Your task to perform on an android device: change keyboard looks Image 0: 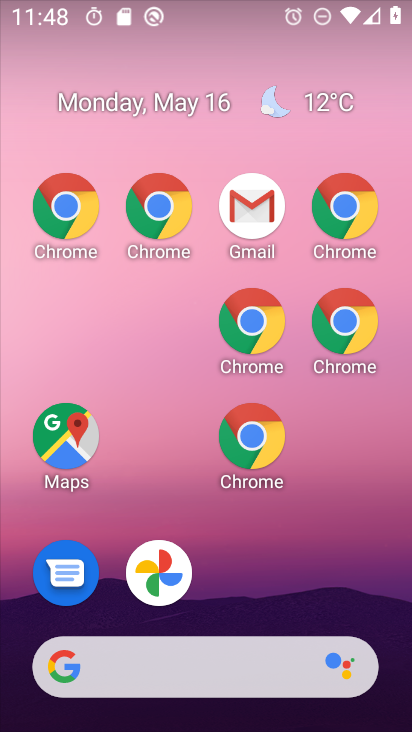
Step 0: drag from (301, 584) to (180, 25)
Your task to perform on an android device: change keyboard looks Image 1: 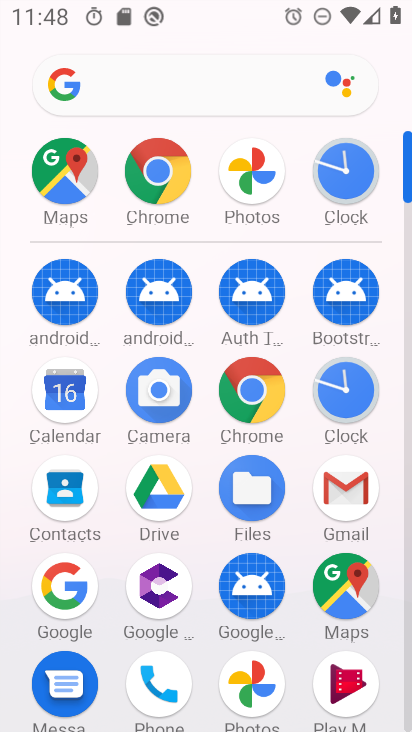
Step 1: drag from (223, 679) to (254, 170)
Your task to perform on an android device: change keyboard looks Image 2: 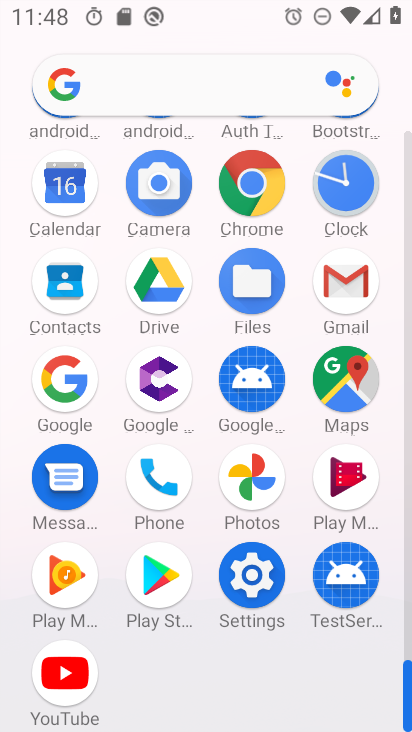
Step 2: click (259, 592)
Your task to perform on an android device: change keyboard looks Image 3: 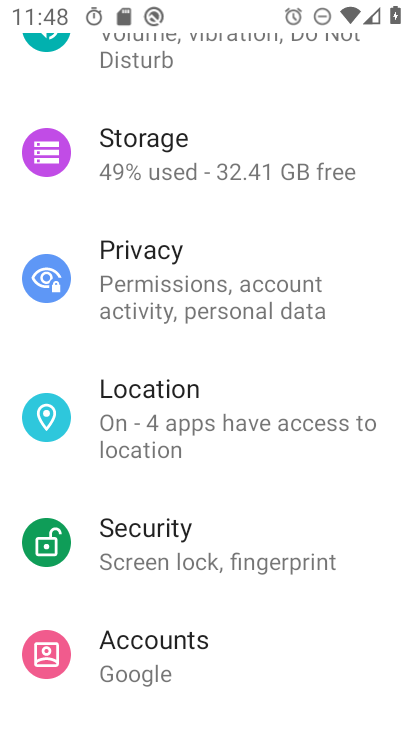
Step 3: drag from (204, 540) to (196, 14)
Your task to perform on an android device: change keyboard looks Image 4: 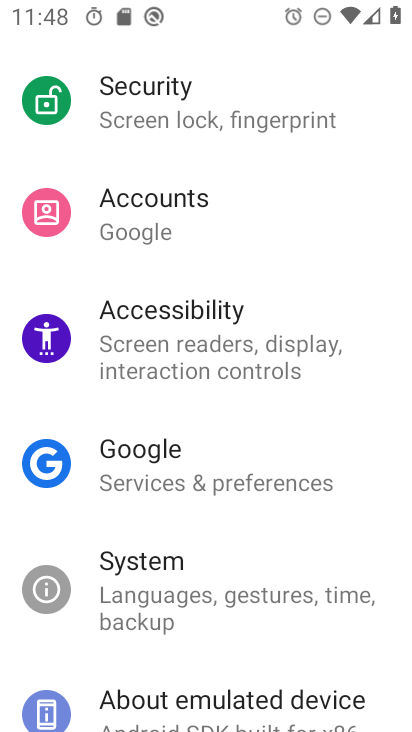
Step 4: drag from (165, 427) to (82, 57)
Your task to perform on an android device: change keyboard looks Image 5: 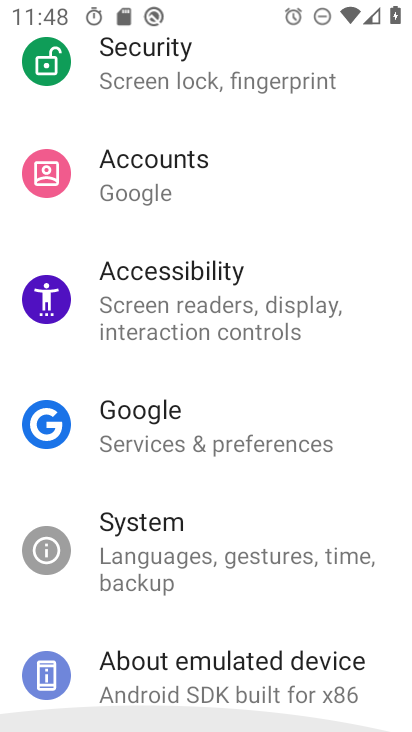
Step 5: drag from (165, 506) to (207, 74)
Your task to perform on an android device: change keyboard looks Image 6: 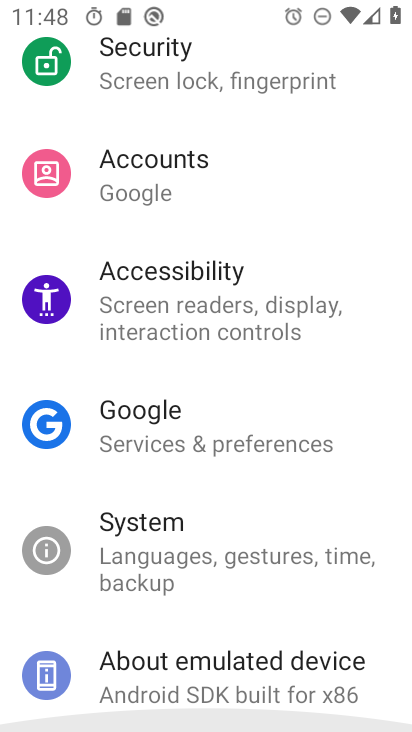
Step 6: drag from (217, 481) to (212, 190)
Your task to perform on an android device: change keyboard looks Image 7: 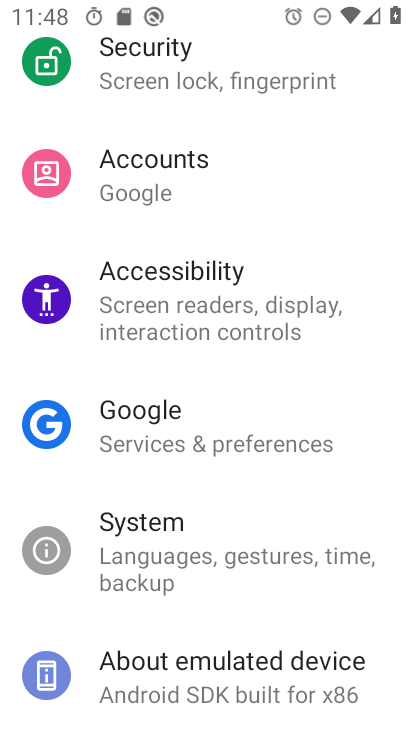
Step 7: click (167, 556)
Your task to perform on an android device: change keyboard looks Image 8: 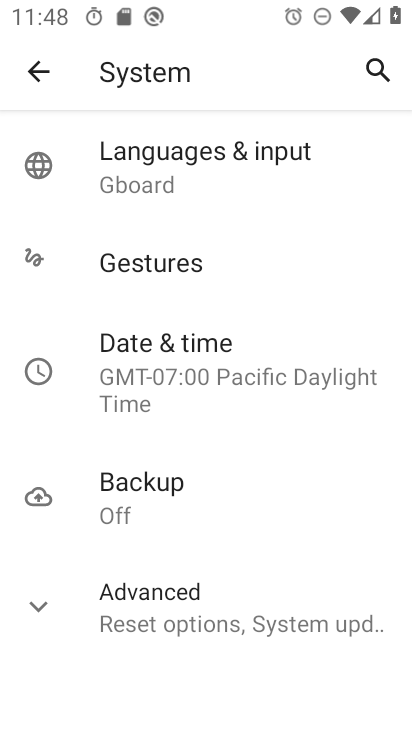
Step 8: click (139, 159)
Your task to perform on an android device: change keyboard looks Image 9: 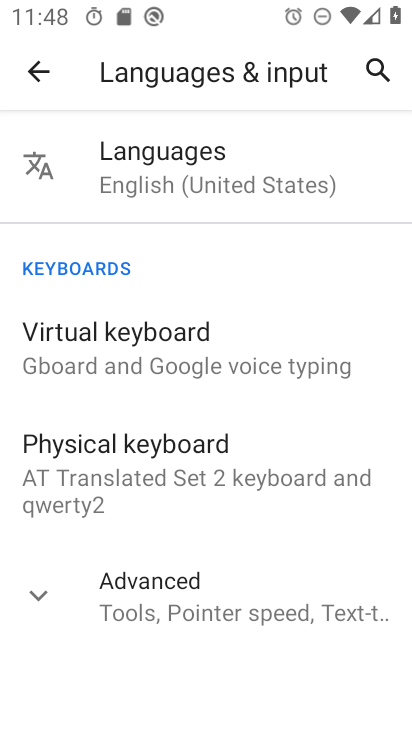
Step 9: click (102, 364)
Your task to perform on an android device: change keyboard looks Image 10: 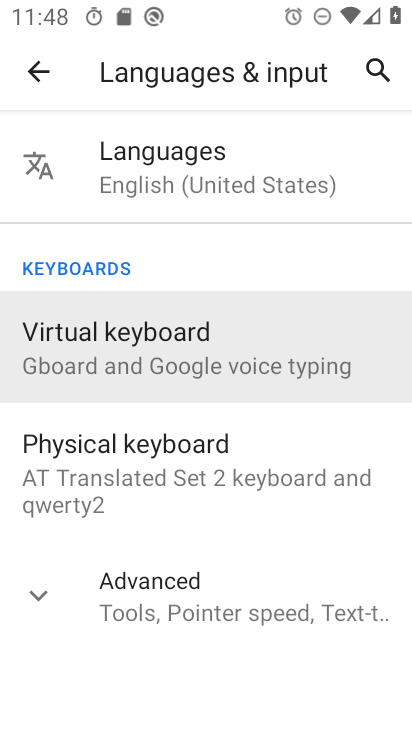
Step 10: click (102, 378)
Your task to perform on an android device: change keyboard looks Image 11: 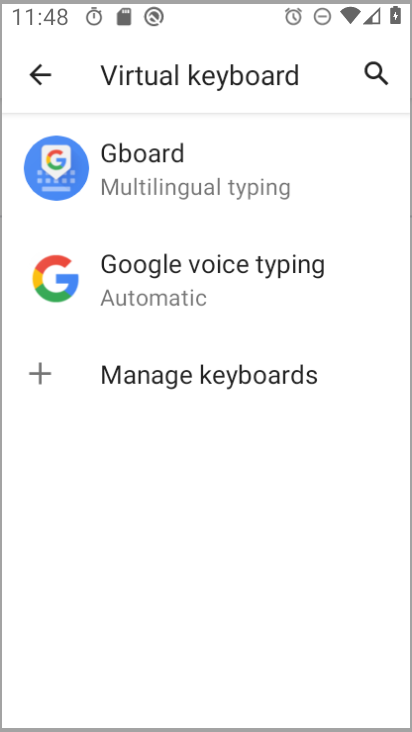
Step 11: click (97, 382)
Your task to perform on an android device: change keyboard looks Image 12: 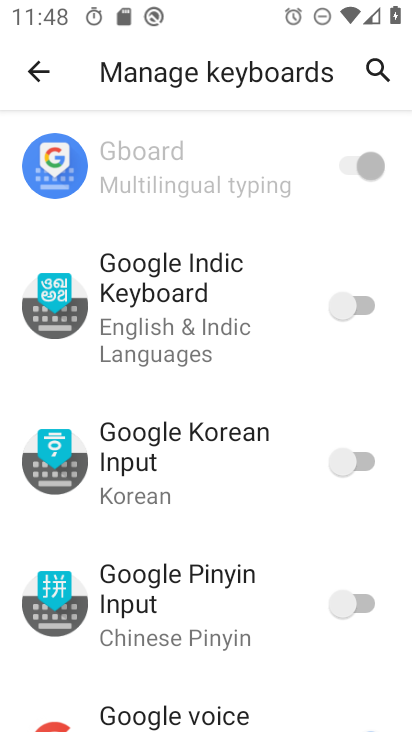
Step 12: click (30, 72)
Your task to perform on an android device: change keyboard looks Image 13: 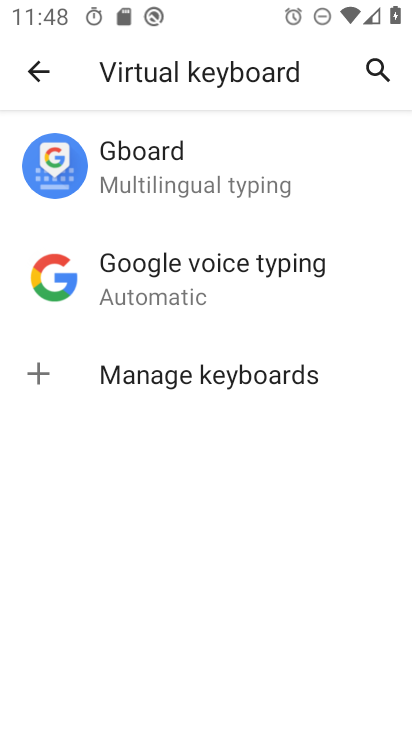
Step 13: click (135, 177)
Your task to perform on an android device: change keyboard looks Image 14: 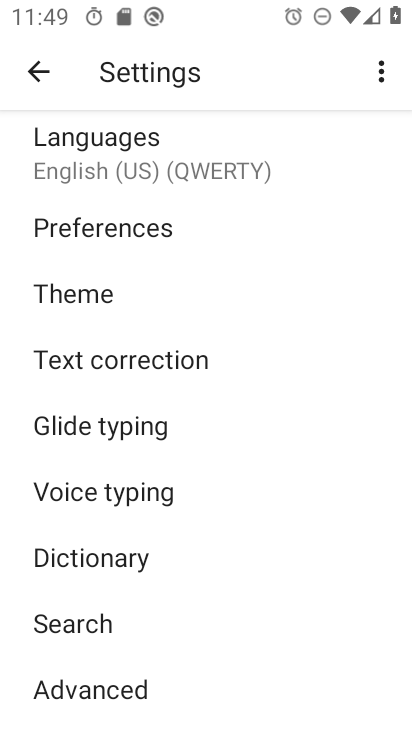
Step 14: click (60, 312)
Your task to perform on an android device: change keyboard looks Image 15: 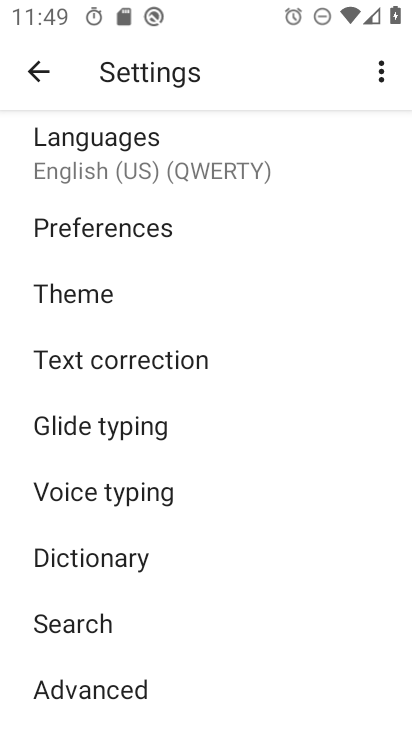
Step 15: click (66, 318)
Your task to perform on an android device: change keyboard looks Image 16: 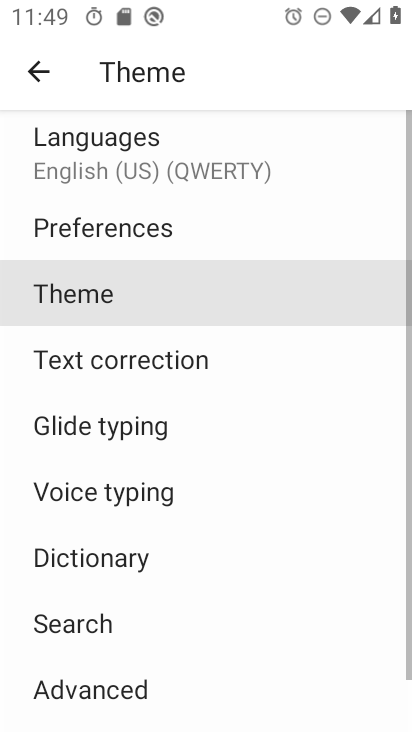
Step 16: click (66, 318)
Your task to perform on an android device: change keyboard looks Image 17: 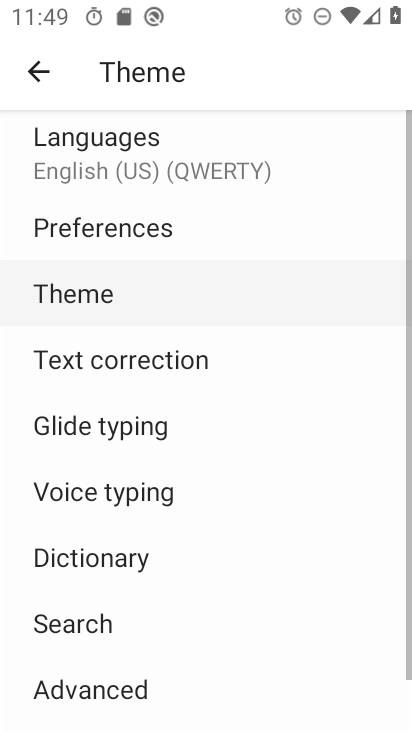
Step 17: click (64, 319)
Your task to perform on an android device: change keyboard looks Image 18: 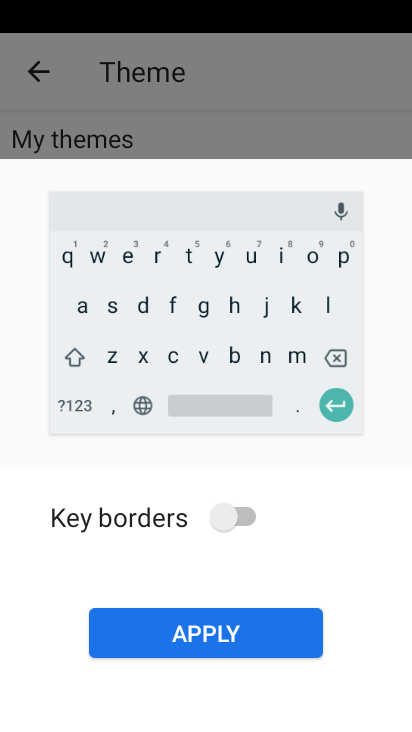
Step 18: click (207, 639)
Your task to perform on an android device: change keyboard looks Image 19: 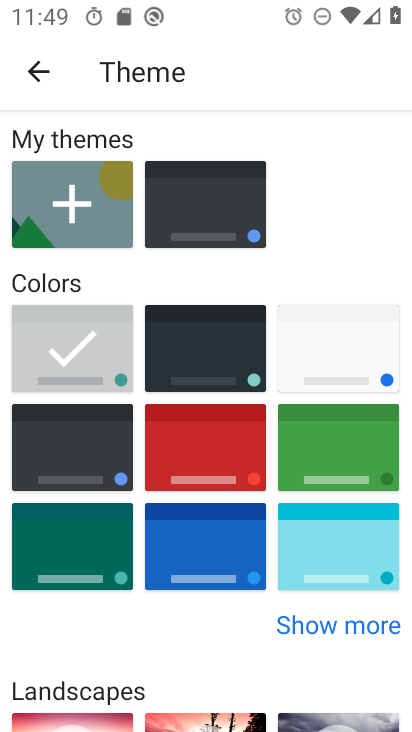
Step 19: task complete